Your task to perform on an android device: Go to eBay Image 0: 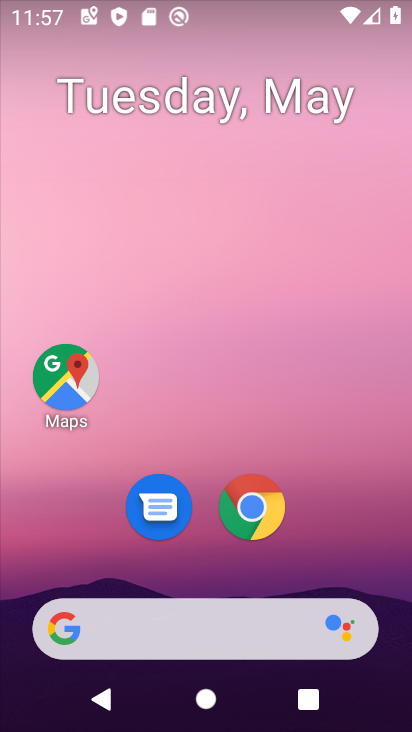
Step 0: click (248, 505)
Your task to perform on an android device: Go to eBay Image 1: 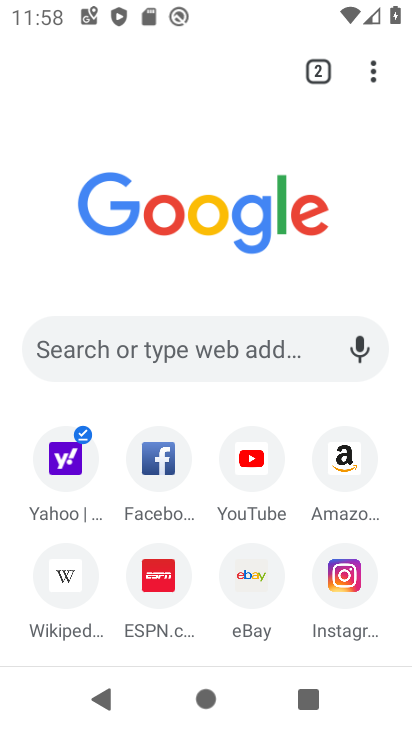
Step 1: click (251, 599)
Your task to perform on an android device: Go to eBay Image 2: 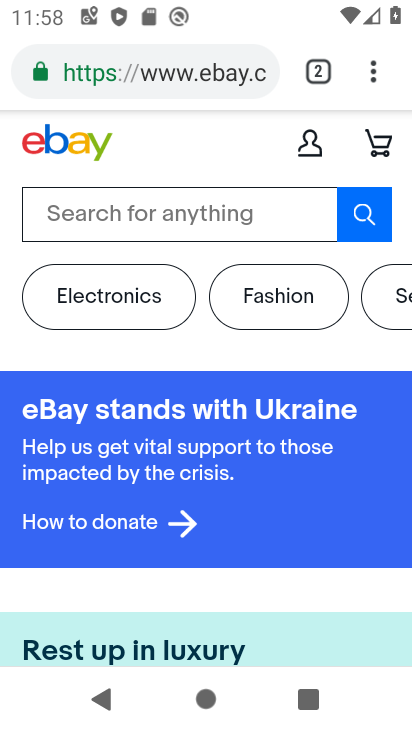
Step 2: task complete